Your task to perform on an android device: turn on the 12-hour format for clock Image 0: 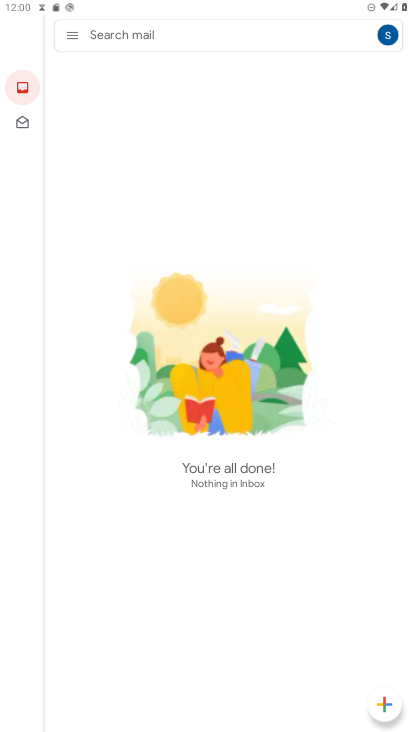
Step 0: press home button
Your task to perform on an android device: turn on the 12-hour format for clock Image 1: 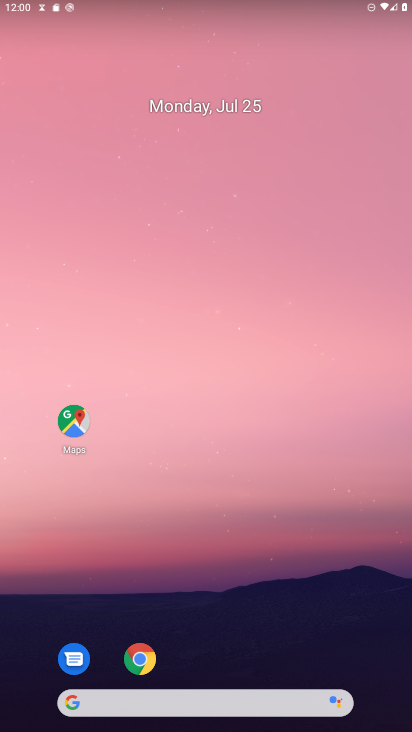
Step 1: drag from (247, 653) to (227, 97)
Your task to perform on an android device: turn on the 12-hour format for clock Image 2: 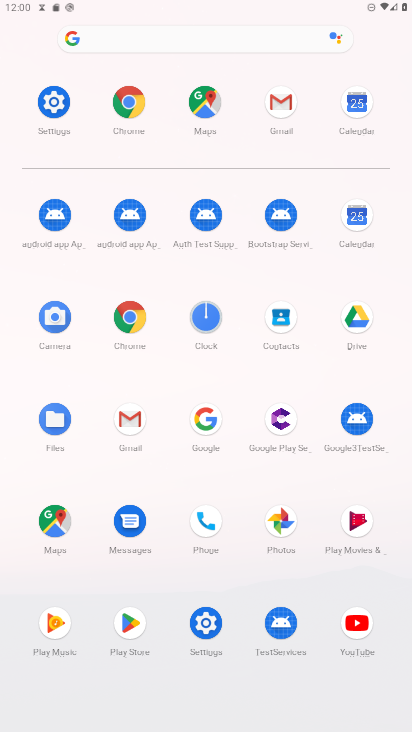
Step 2: click (204, 312)
Your task to perform on an android device: turn on the 12-hour format for clock Image 3: 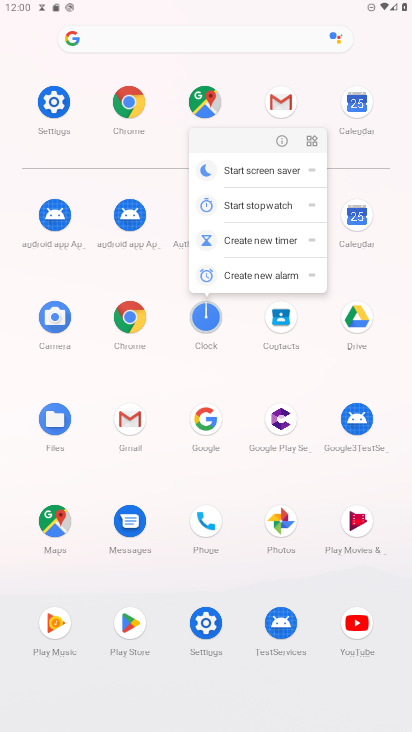
Step 3: click (205, 318)
Your task to perform on an android device: turn on the 12-hour format for clock Image 4: 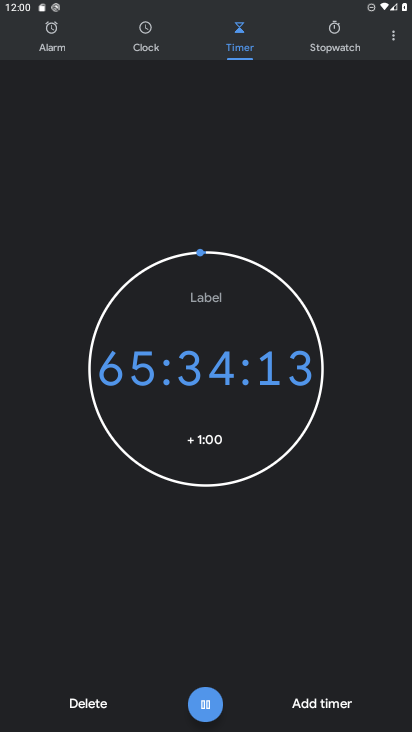
Step 4: click (403, 31)
Your task to perform on an android device: turn on the 12-hour format for clock Image 5: 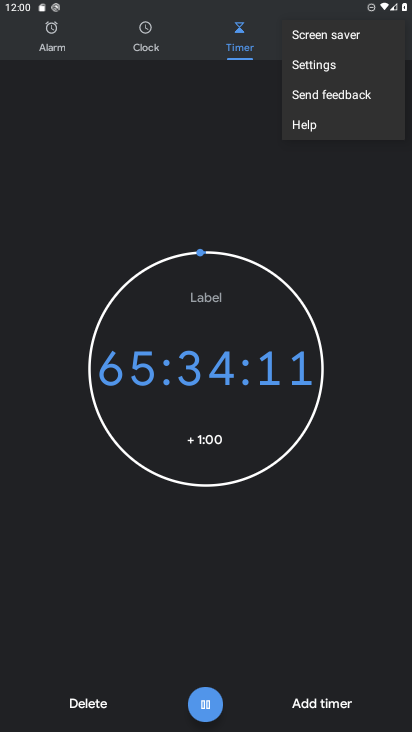
Step 5: click (331, 73)
Your task to perform on an android device: turn on the 12-hour format for clock Image 6: 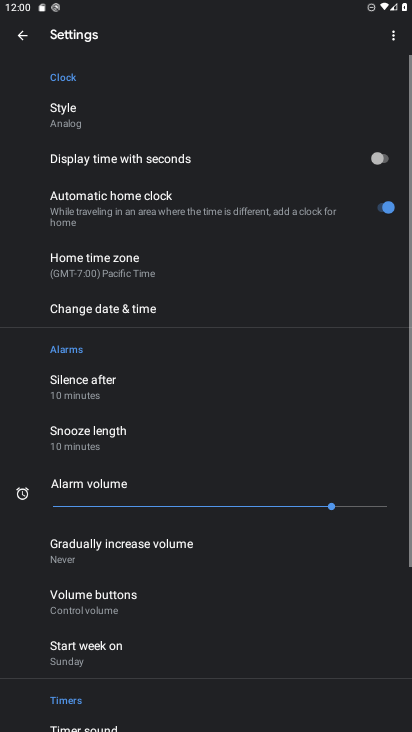
Step 6: click (124, 301)
Your task to perform on an android device: turn on the 12-hour format for clock Image 7: 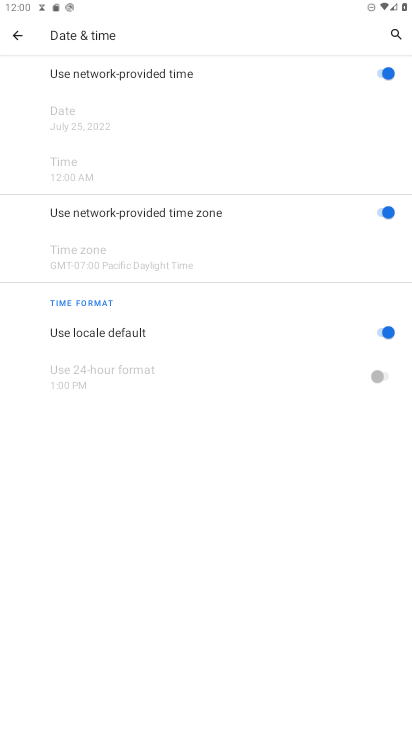
Step 7: click (372, 328)
Your task to perform on an android device: turn on the 12-hour format for clock Image 8: 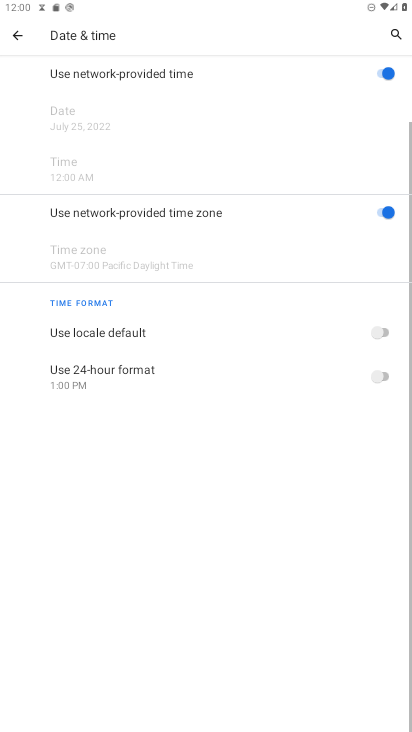
Step 8: click (372, 367)
Your task to perform on an android device: turn on the 12-hour format for clock Image 9: 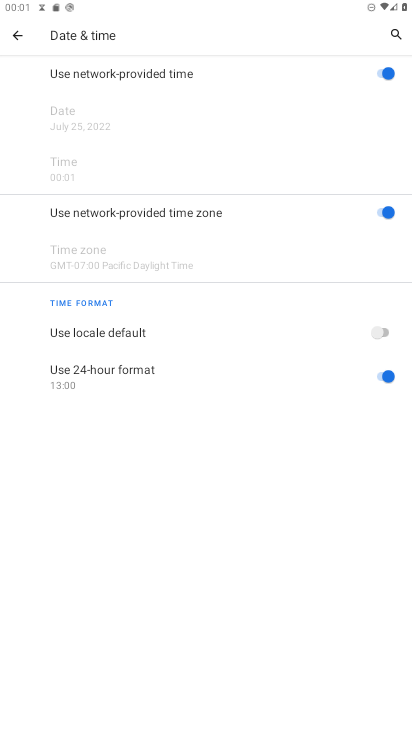
Step 9: task complete